Your task to perform on an android device: Go to Reddit.com Image 0: 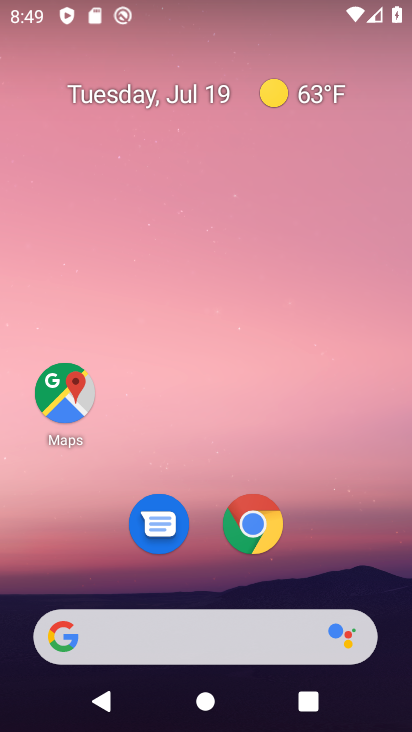
Step 0: click (246, 526)
Your task to perform on an android device: Go to Reddit.com Image 1: 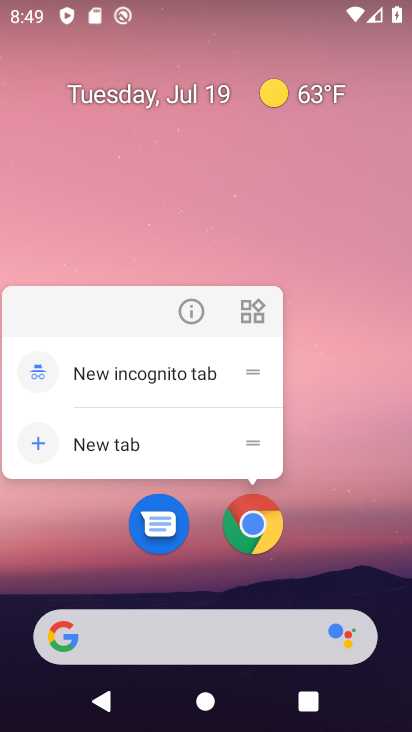
Step 1: click (254, 522)
Your task to perform on an android device: Go to Reddit.com Image 2: 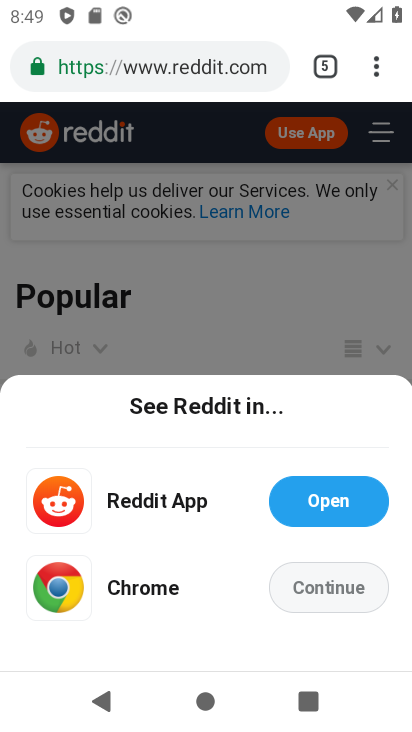
Step 2: task complete